Your task to perform on an android device: Open calendar and show me the first week of next month Image 0: 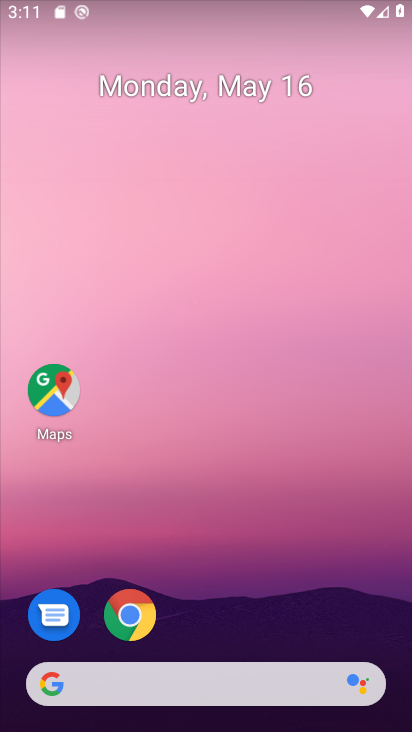
Step 0: drag from (237, 458) to (250, 378)
Your task to perform on an android device: Open calendar and show me the first week of next month Image 1: 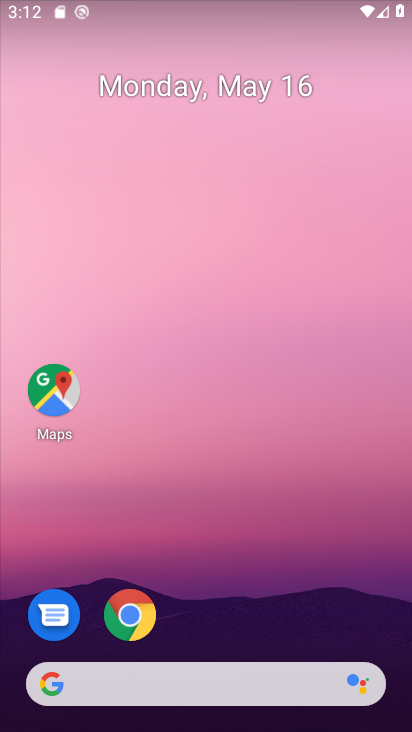
Step 1: drag from (210, 651) to (315, 160)
Your task to perform on an android device: Open calendar and show me the first week of next month Image 2: 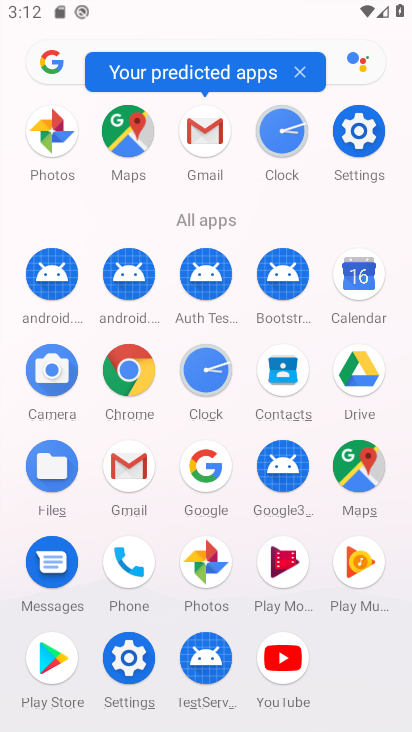
Step 2: click (346, 288)
Your task to perform on an android device: Open calendar and show me the first week of next month Image 3: 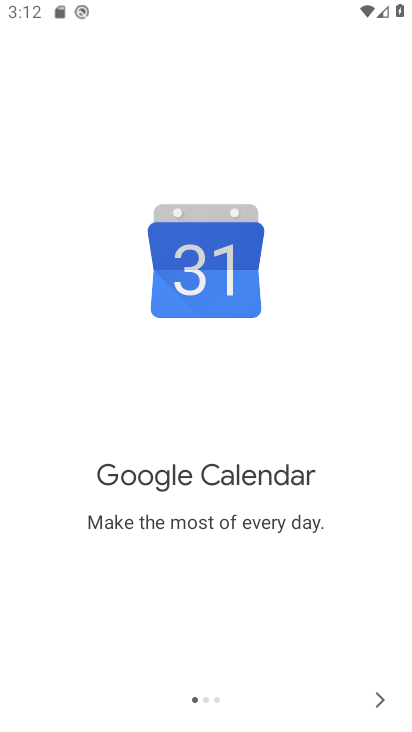
Step 3: click (379, 702)
Your task to perform on an android device: Open calendar and show me the first week of next month Image 4: 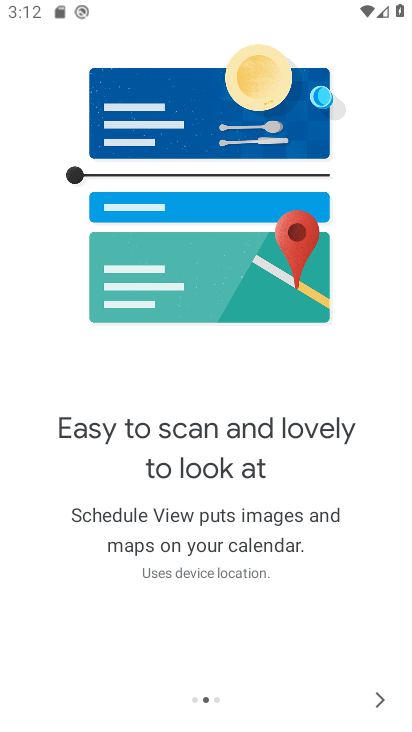
Step 4: click (395, 713)
Your task to perform on an android device: Open calendar and show me the first week of next month Image 5: 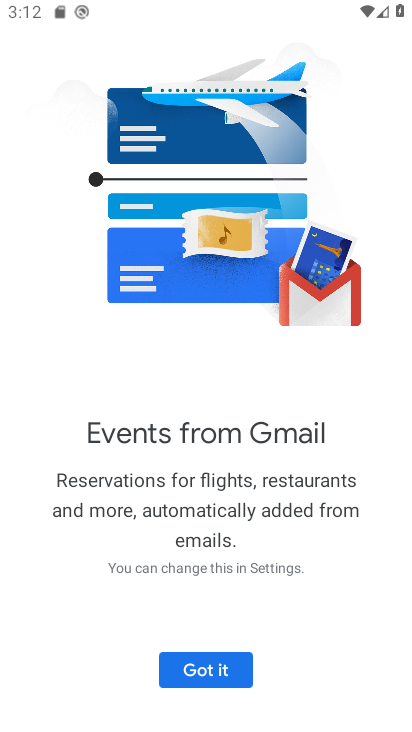
Step 5: click (242, 670)
Your task to perform on an android device: Open calendar and show me the first week of next month Image 6: 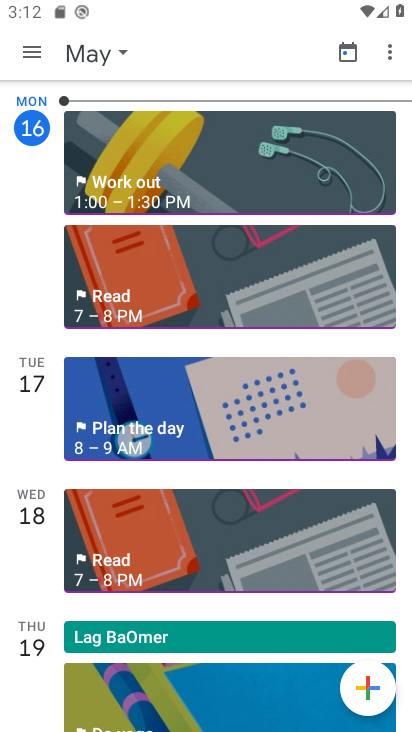
Step 6: click (67, 57)
Your task to perform on an android device: Open calendar and show me the first week of next month Image 7: 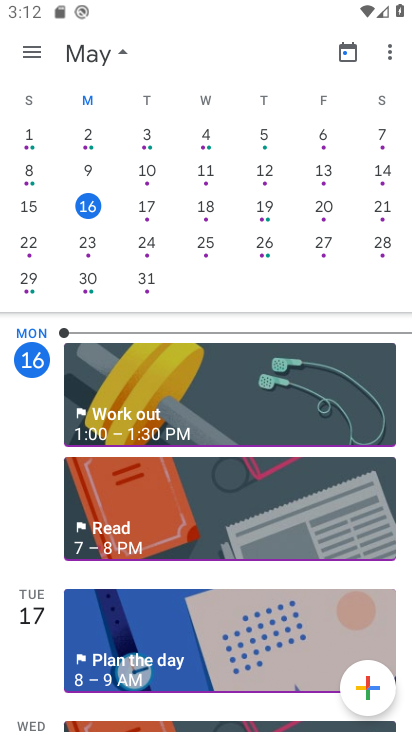
Step 7: drag from (349, 277) to (44, 267)
Your task to perform on an android device: Open calendar and show me the first week of next month Image 8: 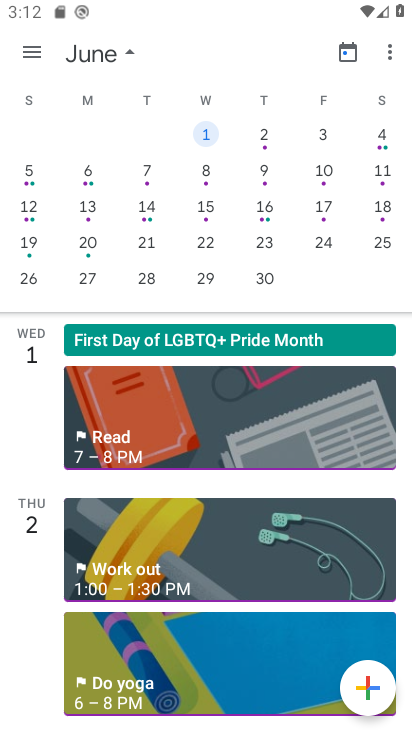
Step 8: click (33, 175)
Your task to perform on an android device: Open calendar and show me the first week of next month Image 9: 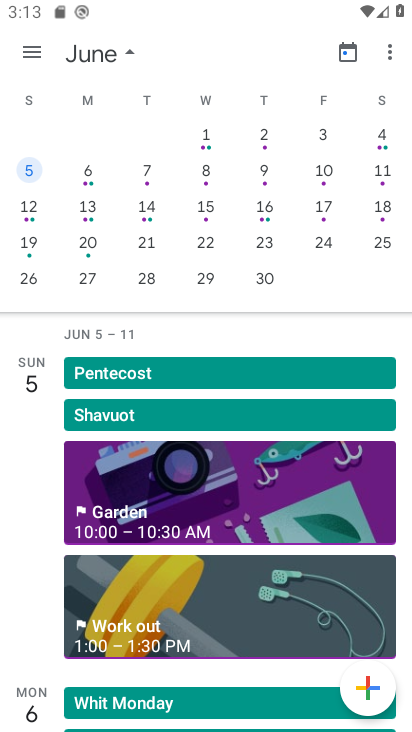
Step 9: click (31, 47)
Your task to perform on an android device: Open calendar and show me the first week of next month Image 10: 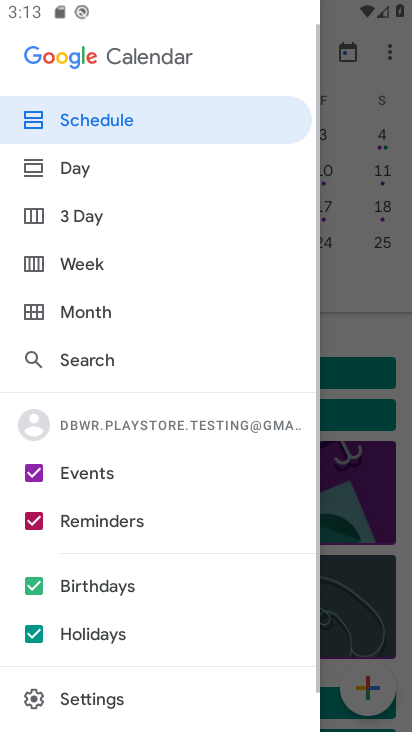
Step 10: click (179, 269)
Your task to perform on an android device: Open calendar and show me the first week of next month Image 11: 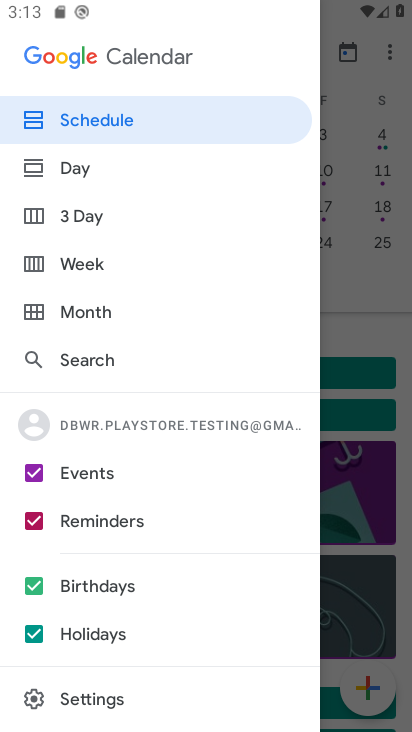
Step 11: task complete